Your task to perform on an android device: Go to notification settings Image 0: 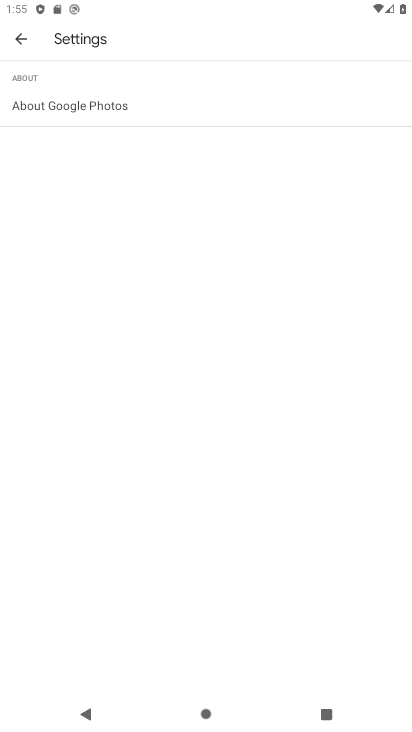
Step 0: press home button
Your task to perform on an android device: Go to notification settings Image 1: 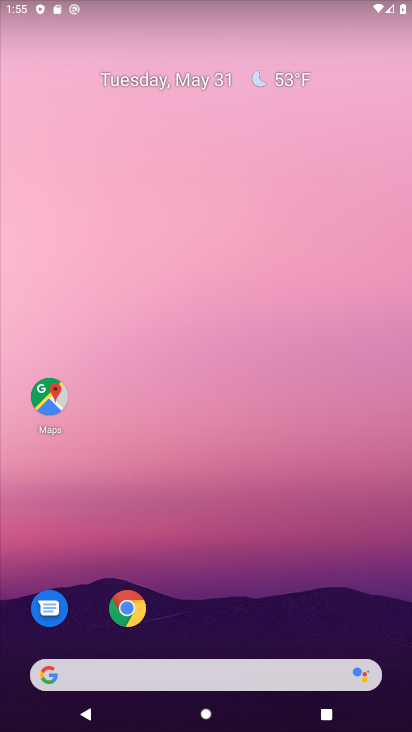
Step 1: drag from (260, 639) to (272, 159)
Your task to perform on an android device: Go to notification settings Image 2: 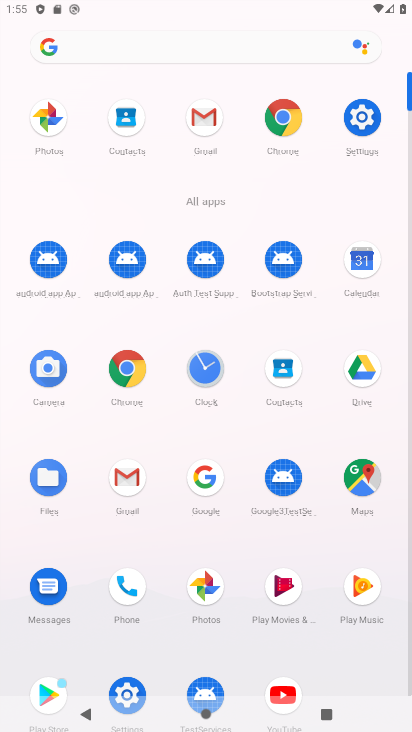
Step 2: click (360, 110)
Your task to perform on an android device: Go to notification settings Image 3: 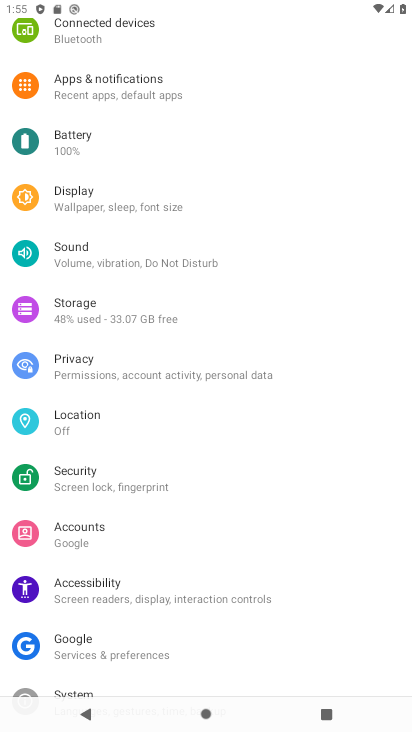
Step 3: drag from (308, 48) to (293, 184)
Your task to perform on an android device: Go to notification settings Image 4: 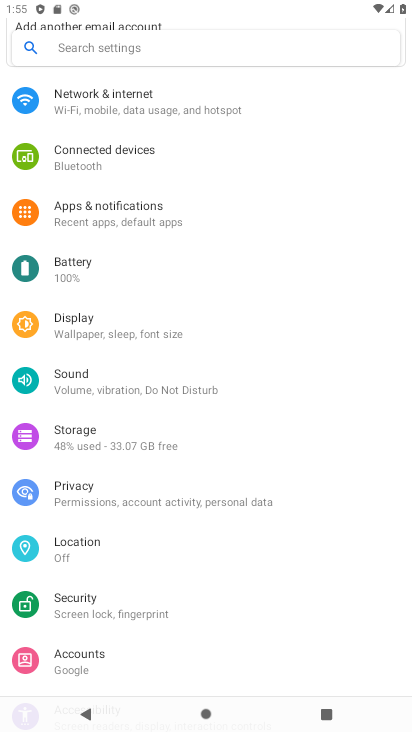
Step 4: click (111, 216)
Your task to perform on an android device: Go to notification settings Image 5: 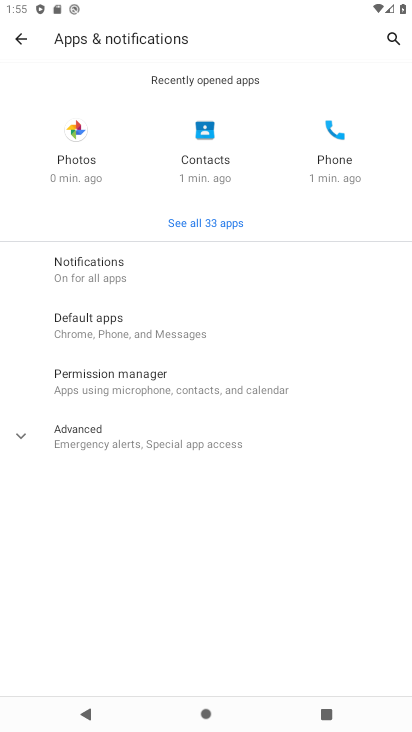
Step 5: task complete